Your task to perform on an android device: delete location history Image 0: 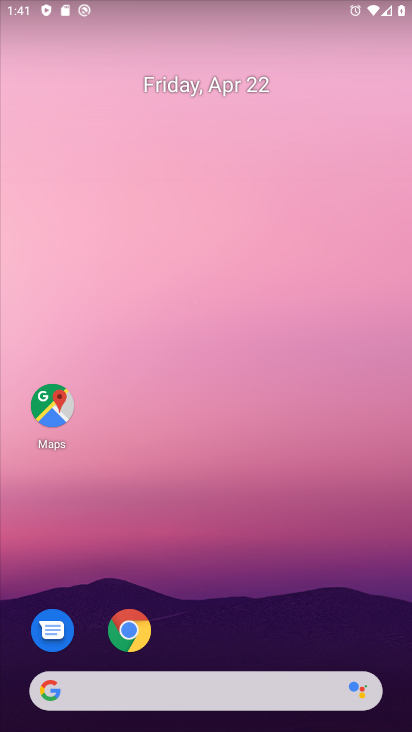
Step 0: drag from (357, 585) to (347, 106)
Your task to perform on an android device: delete location history Image 1: 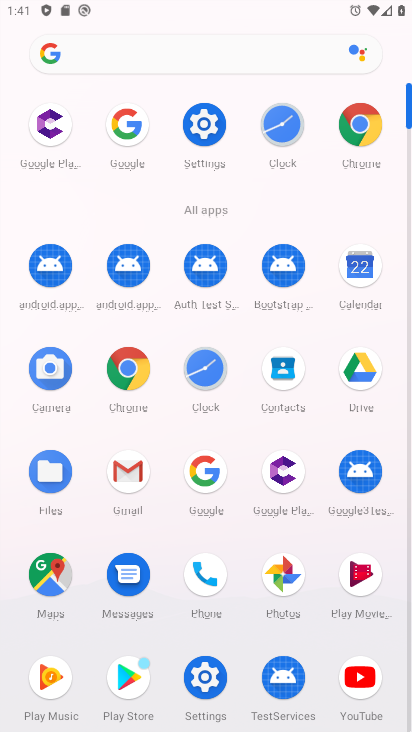
Step 1: click (215, 663)
Your task to perform on an android device: delete location history Image 2: 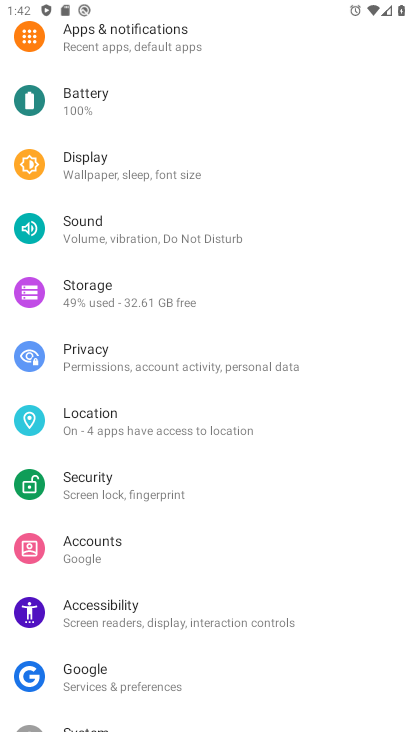
Step 2: click (105, 422)
Your task to perform on an android device: delete location history Image 3: 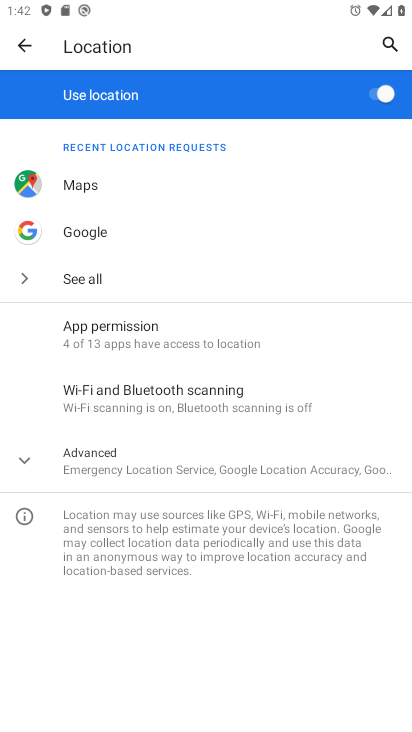
Step 3: click (128, 462)
Your task to perform on an android device: delete location history Image 4: 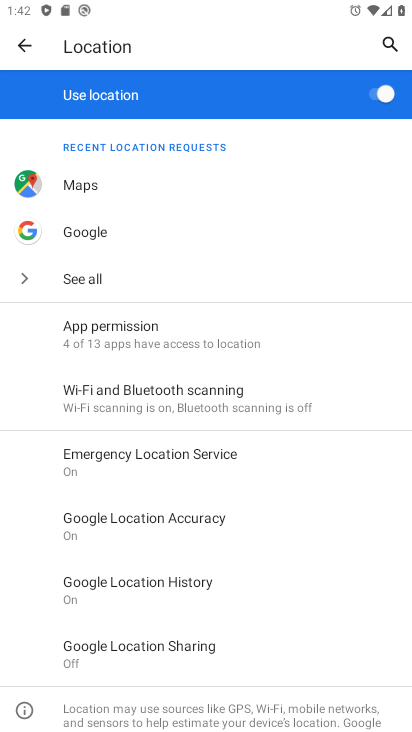
Step 4: click (128, 582)
Your task to perform on an android device: delete location history Image 5: 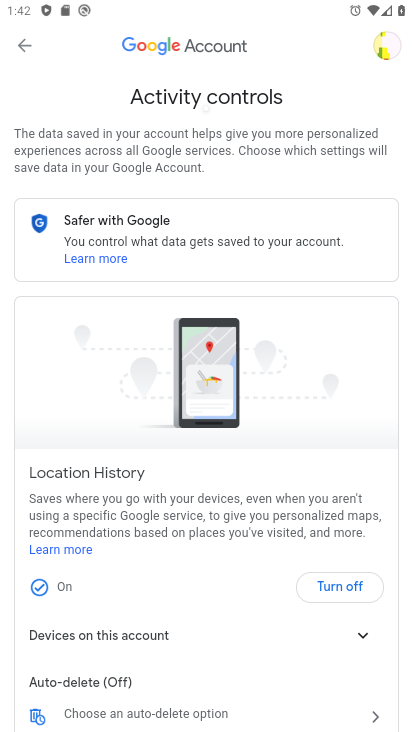
Step 5: drag from (219, 647) to (260, 352)
Your task to perform on an android device: delete location history Image 6: 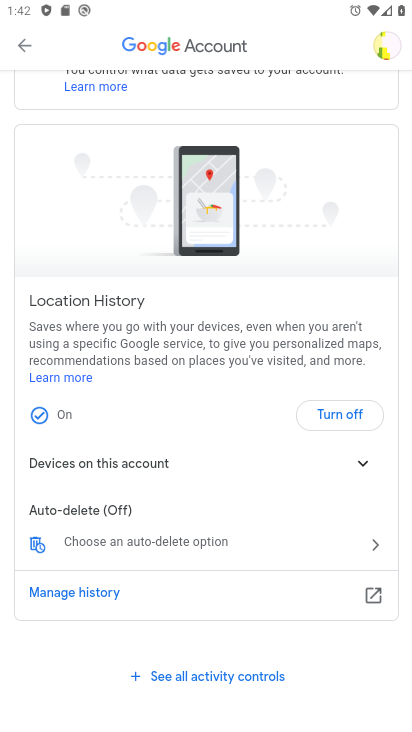
Step 6: drag from (267, 597) to (247, 328)
Your task to perform on an android device: delete location history Image 7: 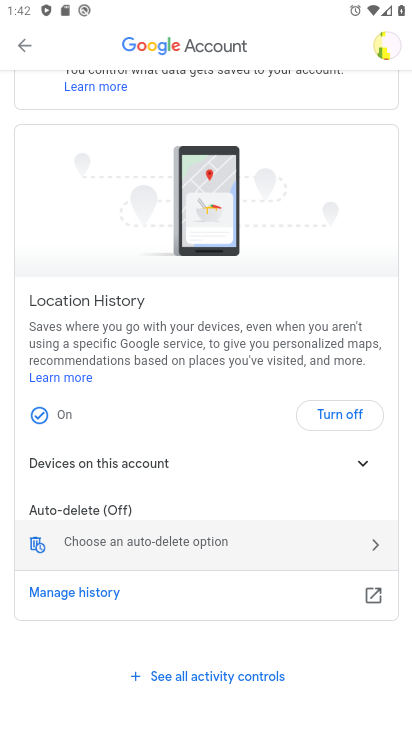
Step 7: click (102, 591)
Your task to perform on an android device: delete location history Image 8: 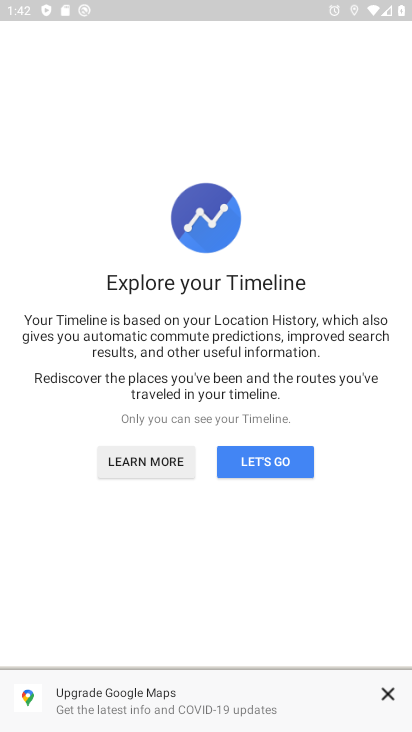
Step 8: click (266, 470)
Your task to perform on an android device: delete location history Image 9: 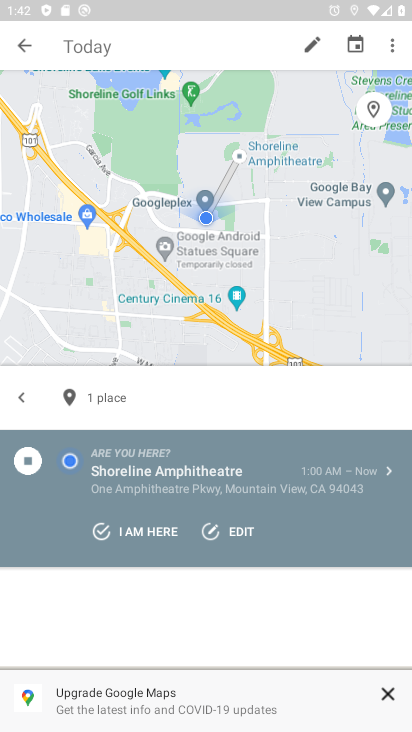
Step 9: click (394, 50)
Your task to perform on an android device: delete location history Image 10: 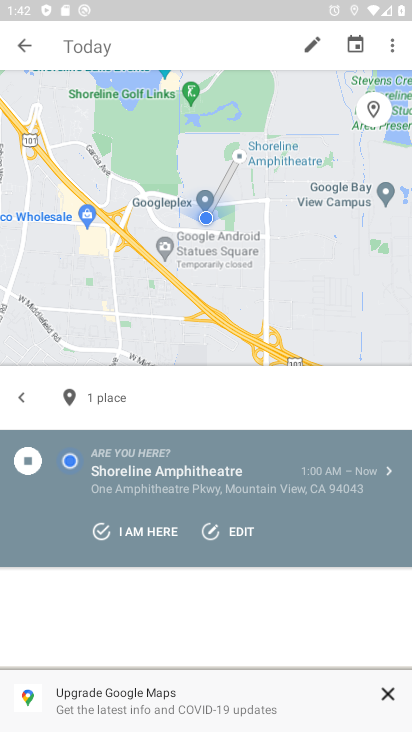
Step 10: click (391, 51)
Your task to perform on an android device: delete location history Image 11: 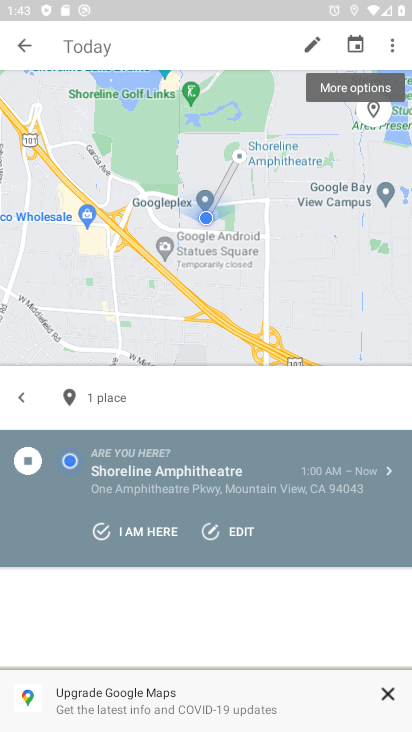
Step 11: click (391, 51)
Your task to perform on an android device: delete location history Image 12: 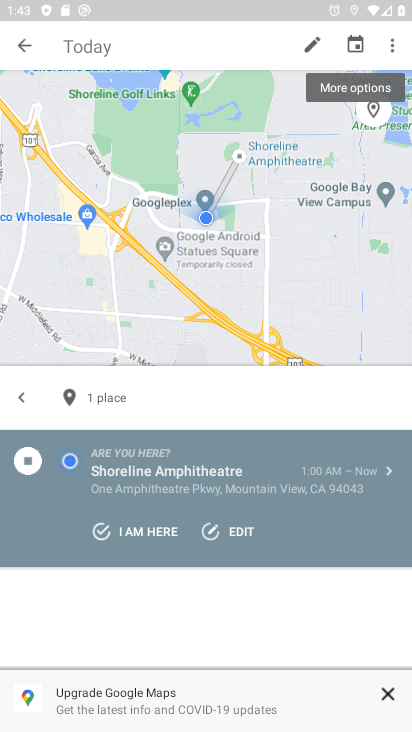
Step 12: click (391, 51)
Your task to perform on an android device: delete location history Image 13: 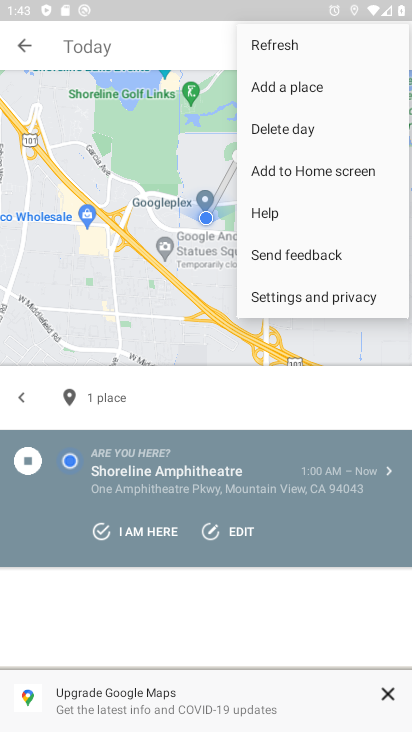
Step 13: click (280, 299)
Your task to perform on an android device: delete location history Image 14: 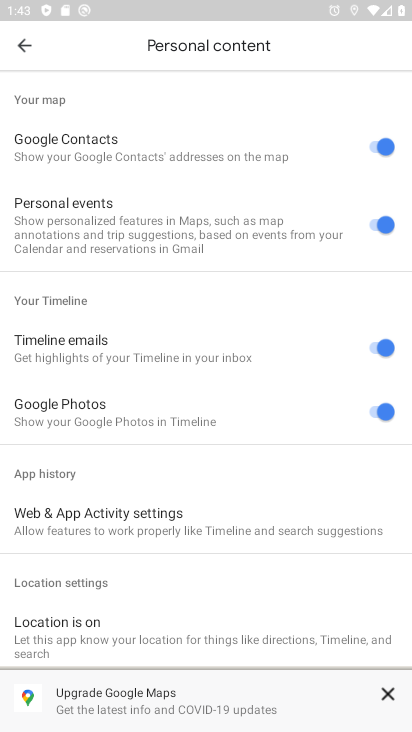
Step 14: drag from (229, 534) to (229, 274)
Your task to perform on an android device: delete location history Image 15: 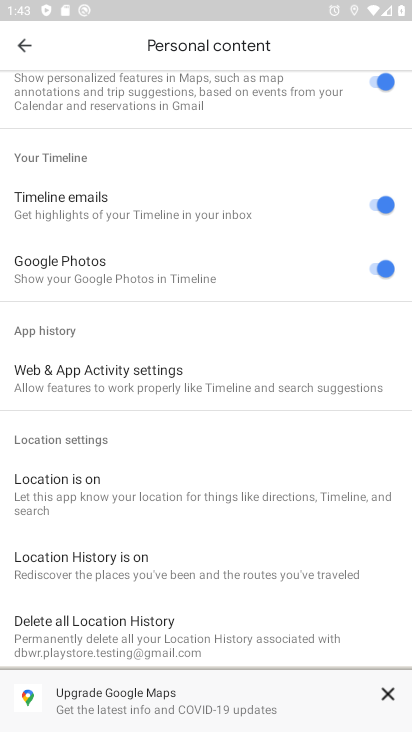
Step 15: click (177, 616)
Your task to perform on an android device: delete location history Image 16: 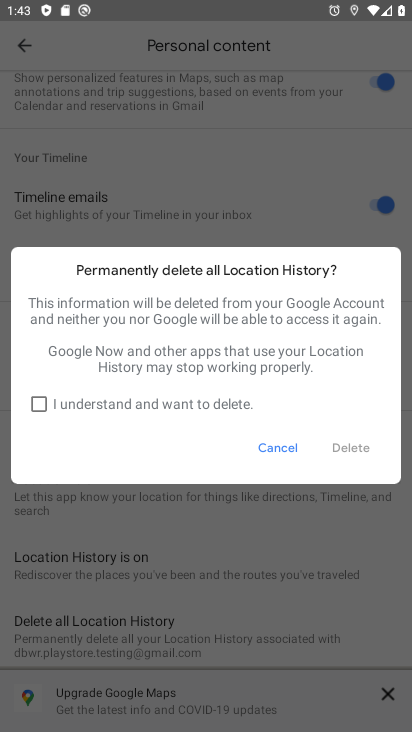
Step 16: click (35, 406)
Your task to perform on an android device: delete location history Image 17: 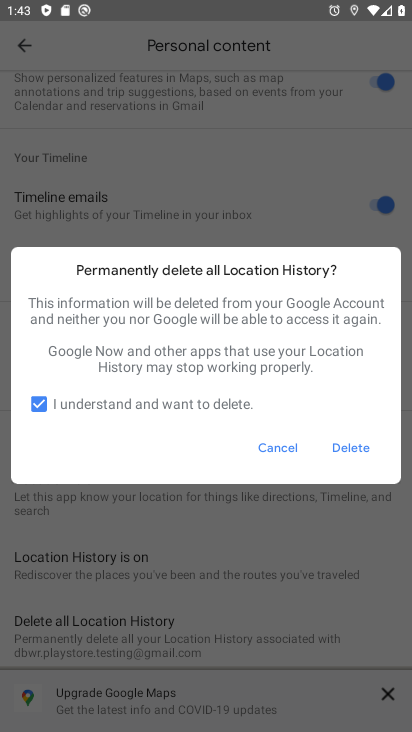
Step 17: click (369, 456)
Your task to perform on an android device: delete location history Image 18: 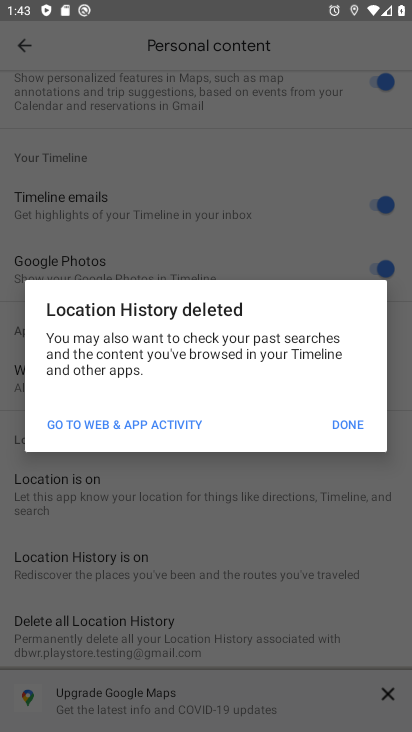
Step 18: click (356, 437)
Your task to perform on an android device: delete location history Image 19: 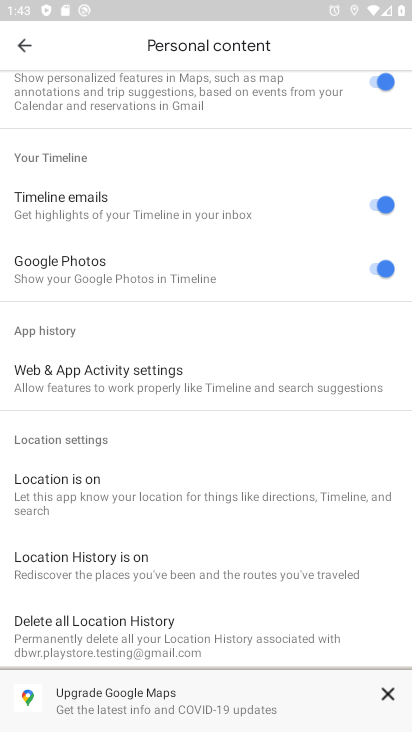
Step 19: task complete